Your task to perform on an android device: turn on wifi Image 0: 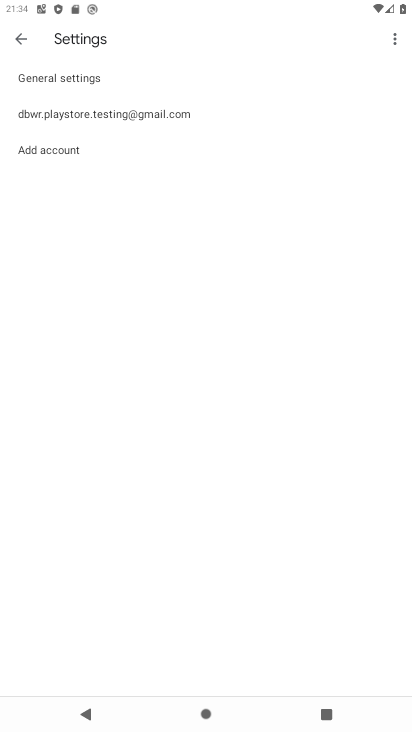
Step 0: press home button
Your task to perform on an android device: turn on wifi Image 1: 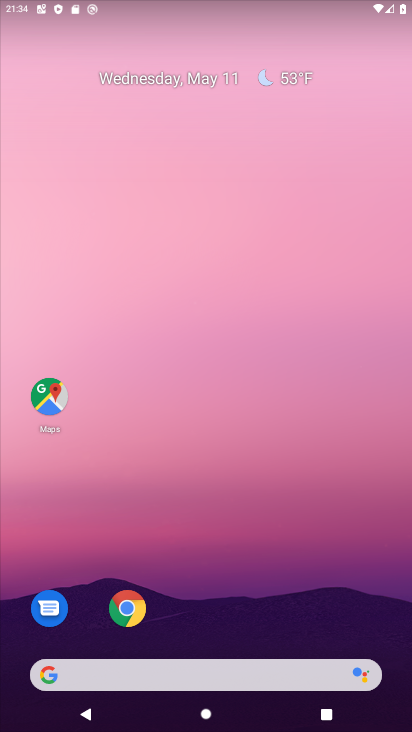
Step 1: drag from (288, 534) to (303, 181)
Your task to perform on an android device: turn on wifi Image 2: 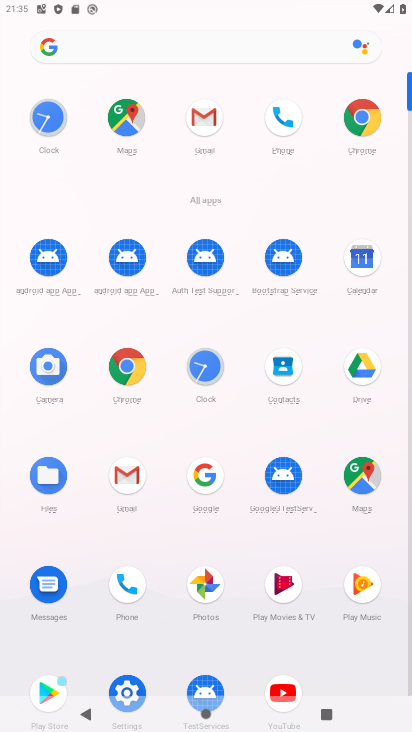
Step 2: drag from (155, 655) to (173, 491)
Your task to perform on an android device: turn on wifi Image 3: 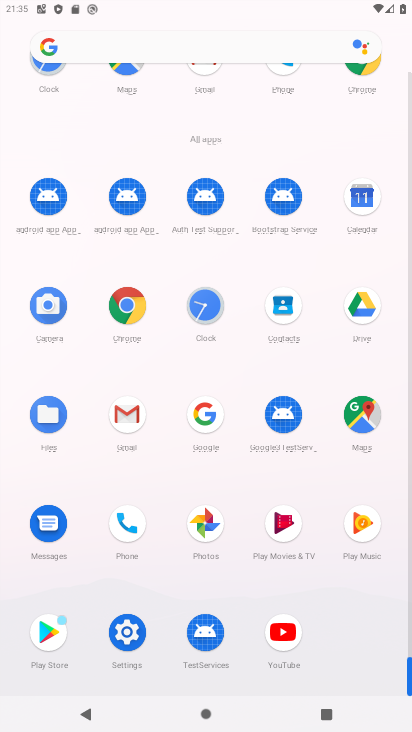
Step 3: click (129, 632)
Your task to perform on an android device: turn on wifi Image 4: 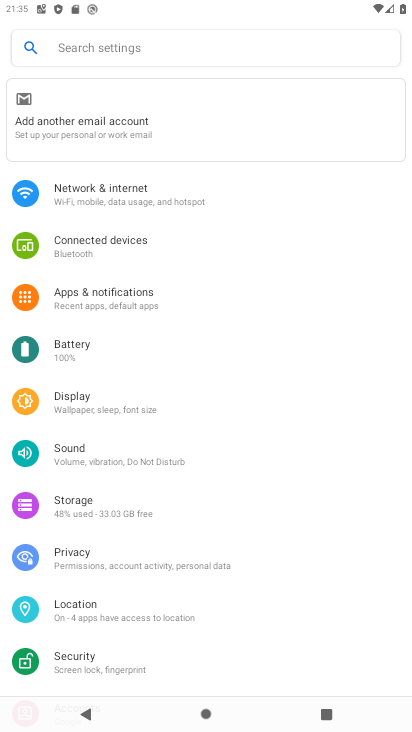
Step 4: click (146, 191)
Your task to perform on an android device: turn on wifi Image 5: 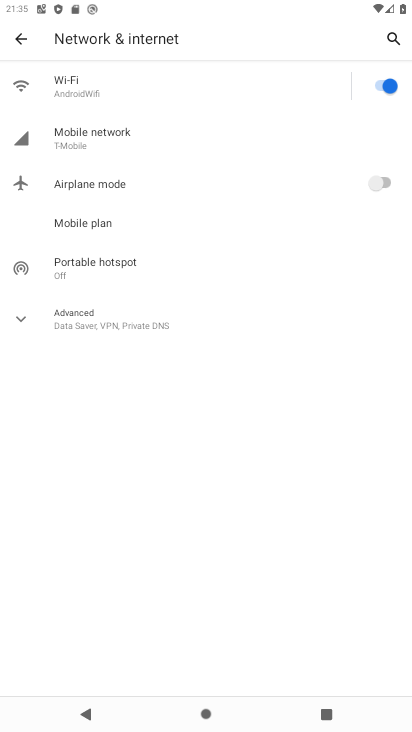
Step 5: task complete